Your task to perform on an android device: turn on location history Image 0: 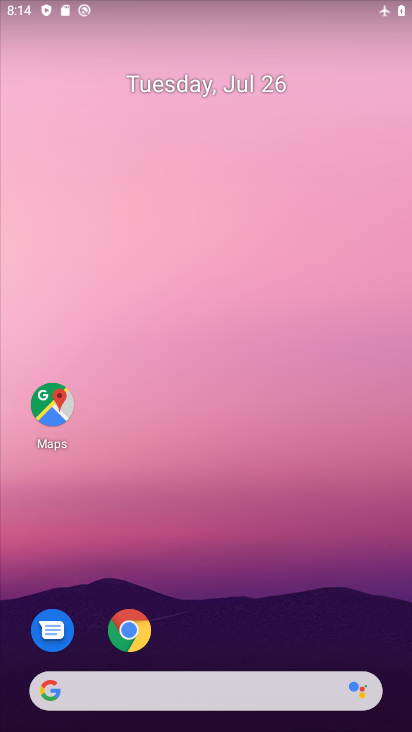
Step 0: drag from (221, 612) to (96, 111)
Your task to perform on an android device: turn on location history Image 1: 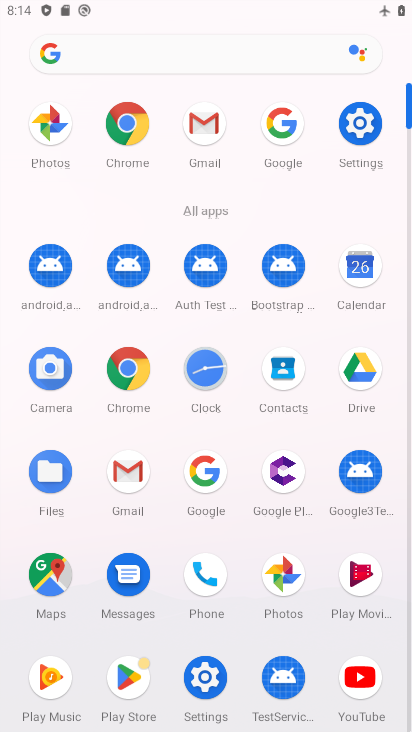
Step 1: click (364, 121)
Your task to perform on an android device: turn on location history Image 2: 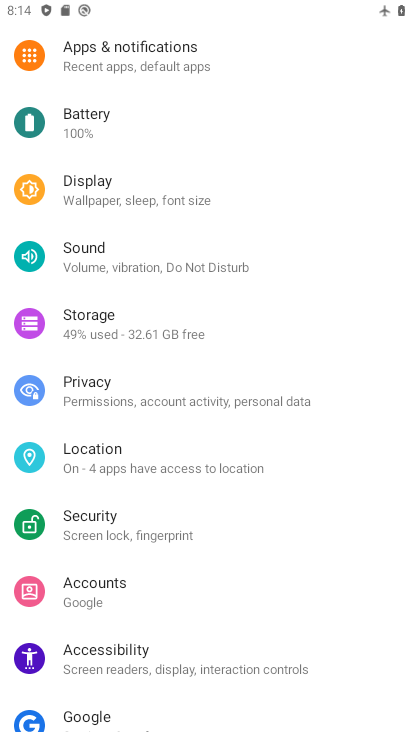
Step 2: click (143, 458)
Your task to perform on an android device: turn on location history Image 3: 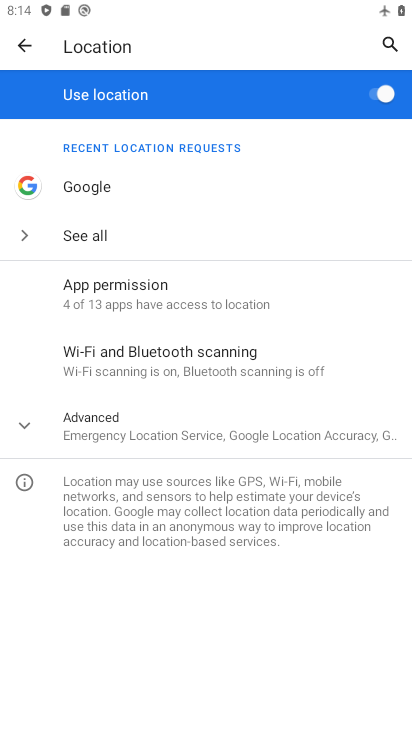
Step 3: click (116, 425)
Your task to perform on an android device: turn on location history Image 4: 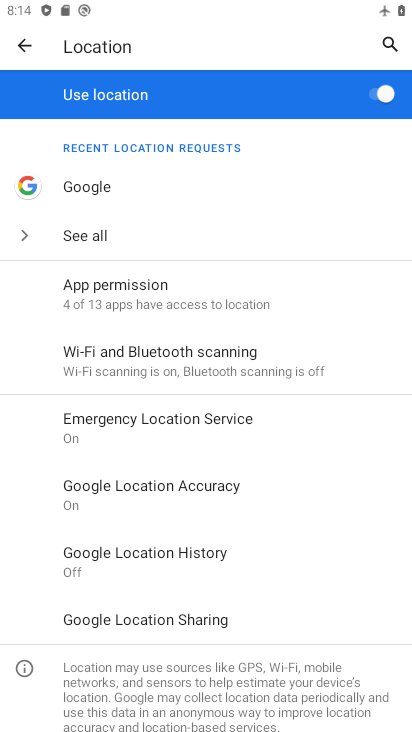
Step 4: click (201, 545)
Your task to perform on an android device: turn on location history Image 5: 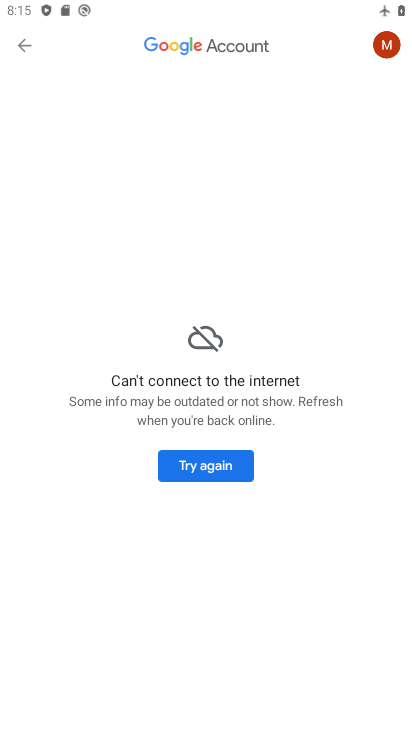
Step 5: task complete